Your task to perform on an android device: Search for pizza restaurants on Maps Image 0: 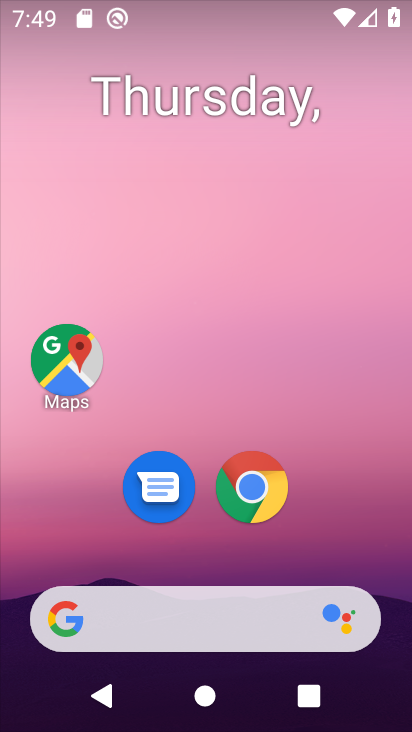
Step 0: click (58, 359)
Your task to perform on an android device: Search for pizza restaurants on Maps Image 1: 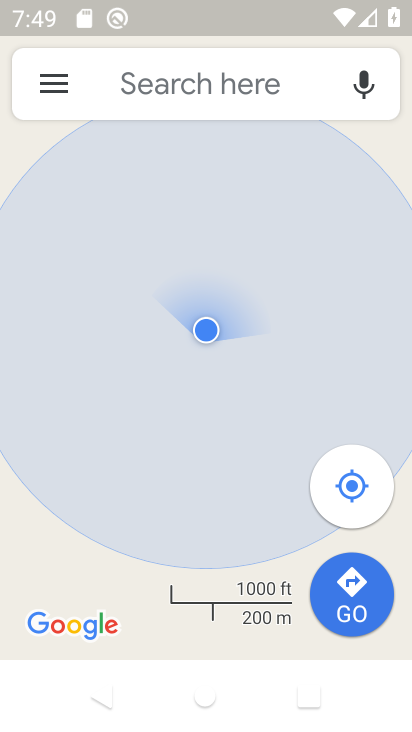
Step 1: click (158, 65)
Your task to perform on an android device: Search for pizza restaurants on Maps Image 2: 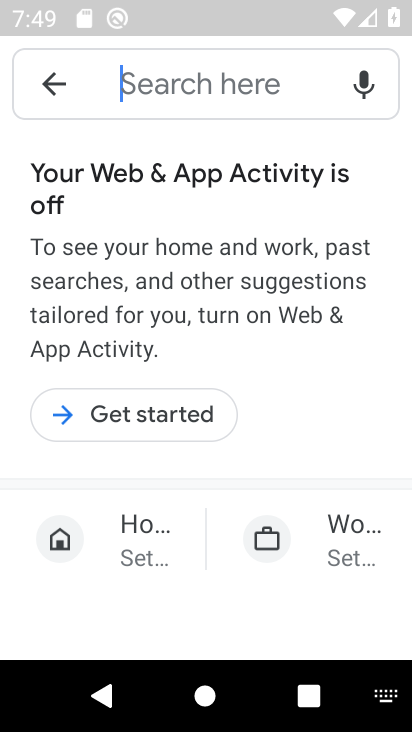
Step 2: click (160, 86)
Your task to perform on an android device: Search for pizza restaurants on Maps Image 3: 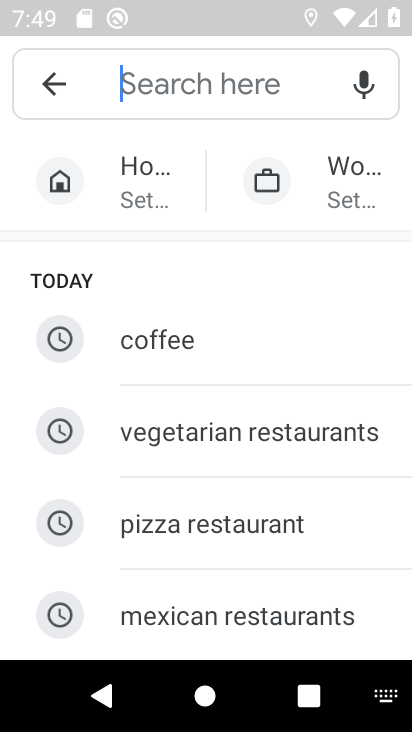
Step 3: type "pizza restraunts"
Your task to perform on an android device: Search for pizza restaurants on Maps Image 4: 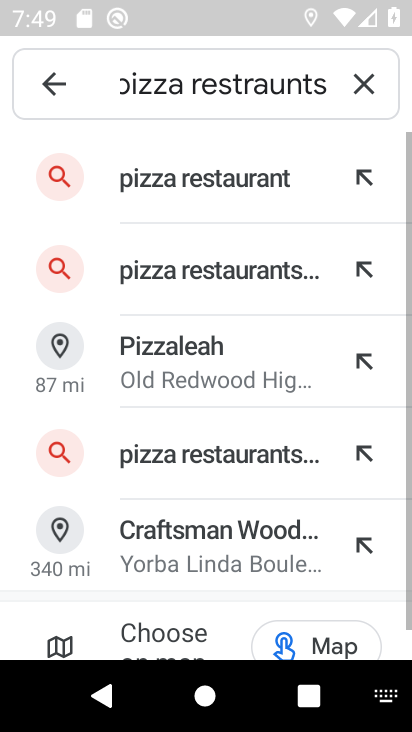
Step 4: click (172, 178)
Your task to perform on an android device: Search for pizza restaurants on Maps Image 5: 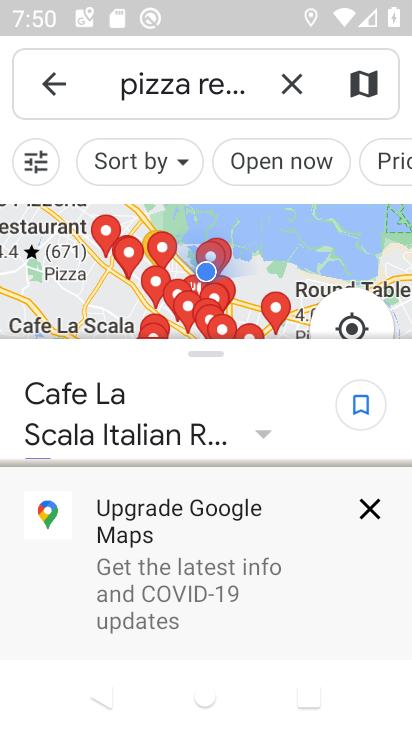
Step 5: task complete